Your task to perform on an android device: Go to network settings Image 0: 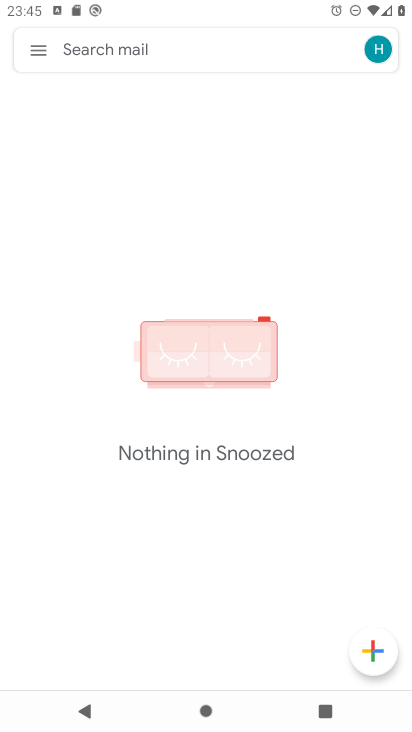
Step 0: press home button
Your task to perform on an android device: Go to network settings Image 1: 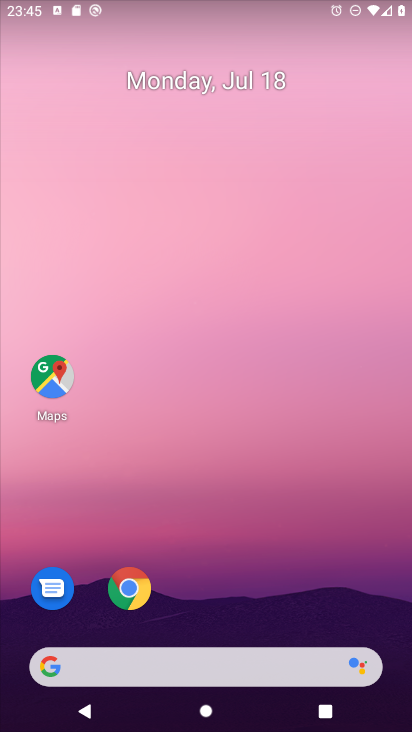
Step 1: drag from (319, 597) to (316, 60)
Your task to perform on an android device: Go to network settings Image 2: 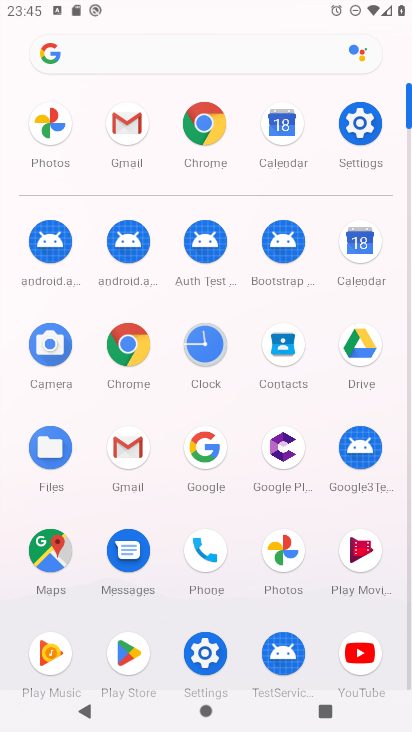
Step 2: click (208, 650)
Your task to perform on an android device: Go to network settings Image 3: 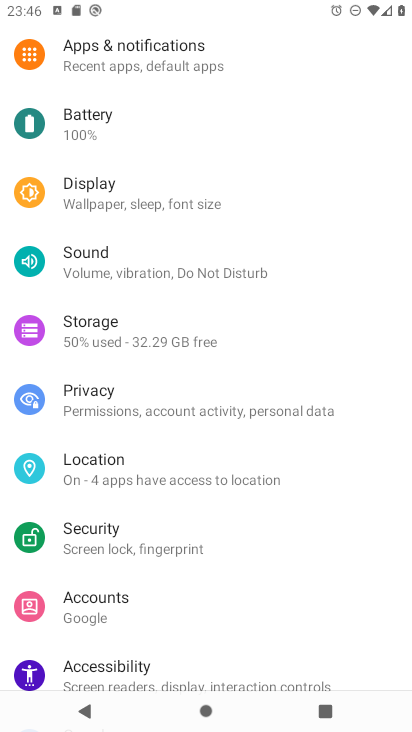
Step 3: drag from (272, 109) to (292, 515)
Your task to perform on an android device: Go to network settings Image 4: 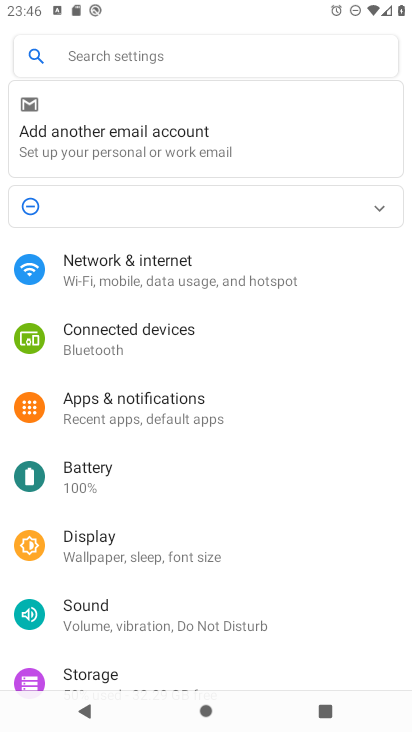
Step 4: click (103, 264)
Your task to perform on an android device: Go to network settings Image 5: 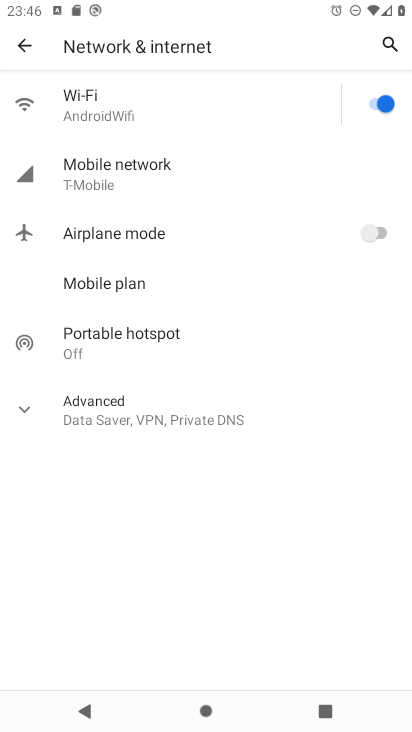
Step 5: click (112, 164)
Your task to perform on an android device: Go to network settings Image 6: 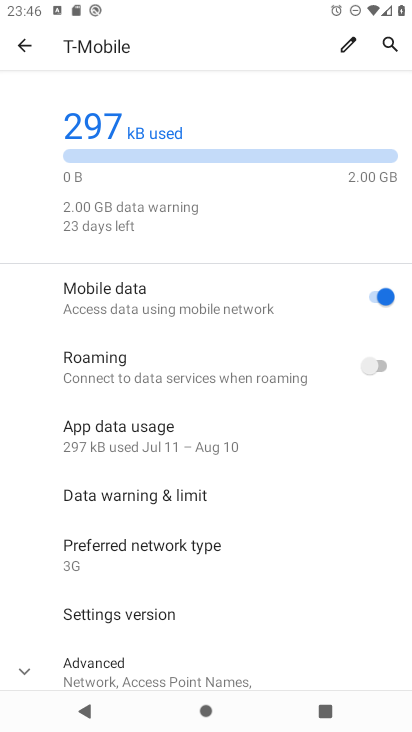
Step 6: click (25, 671)
Your task to perform on an android device: Go to network settings Image 7: 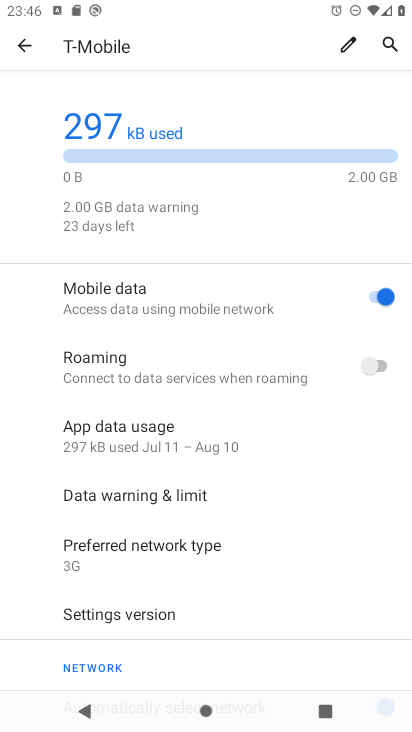
Step 7: task complete